Your task to perform on an android device: change the clock display to analog Image 0: 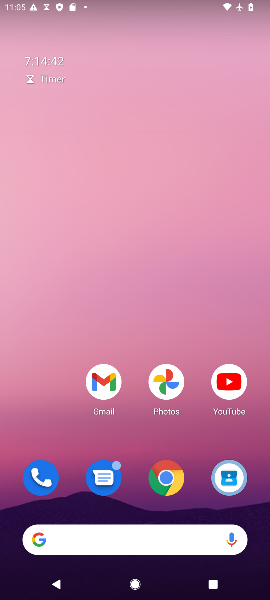
Step 0: drag from (192, 334) to (150, 8)
Your task to perform on an android device: change the clock display to analog Image 1: 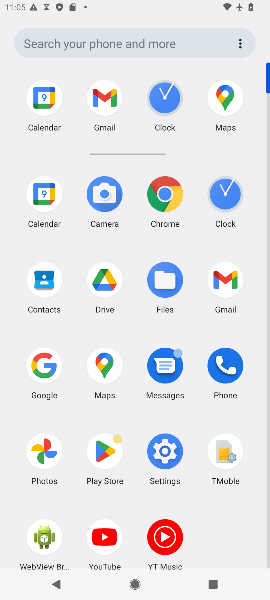
Step 1: click (157, 98)
Your task to perform on an android device: change the clock display to analog Image 2: 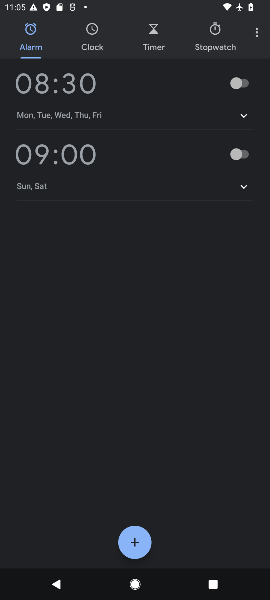
Step 2: click (253, 37)
Your task to perform on an android device: change the clock display to analog Image 3: 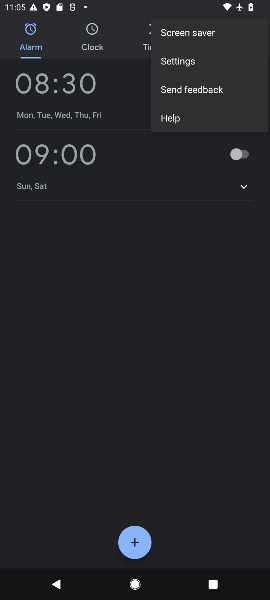
Step 3: click (218, 58)
Your task to perform on an android device: change the clock display to analog Image 4: 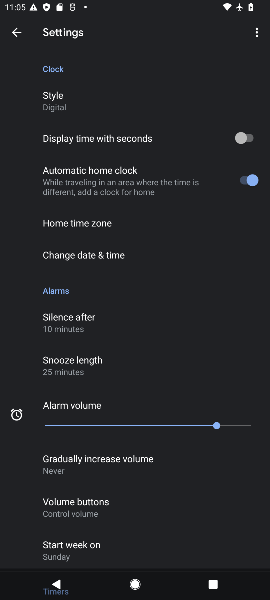
Step 4: click (82, 96)
Your task to perform on an android device: change the clock display to analog Image 5: 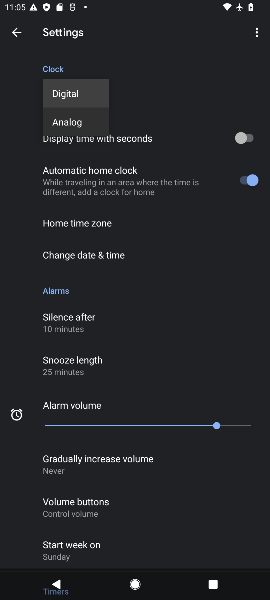
Step 5: click (92, 121)
Your task to perform on an android device: change the clock display to analog Image 6: 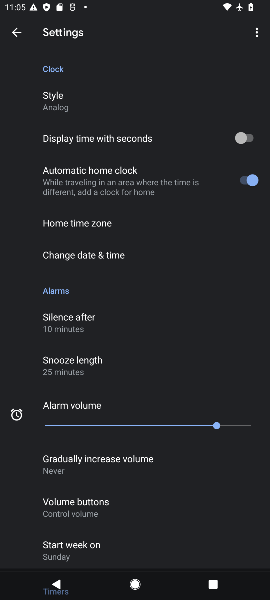
Step 6: task complete